Your task to perform on an android device: install app "Google News" Image 0: 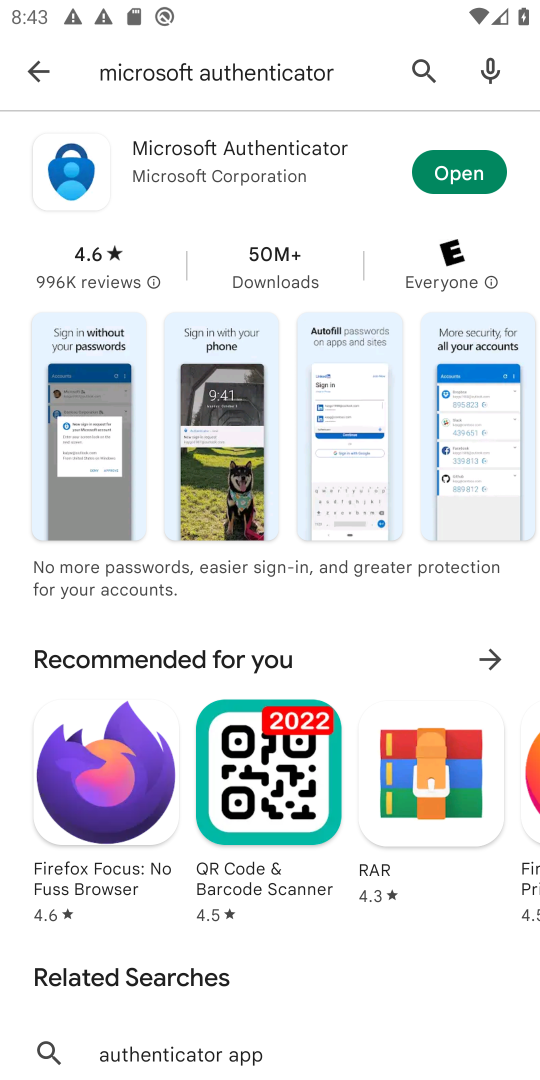
Step 0: press home button
Your task to perform on an android device: install app "Google News" Image 1: 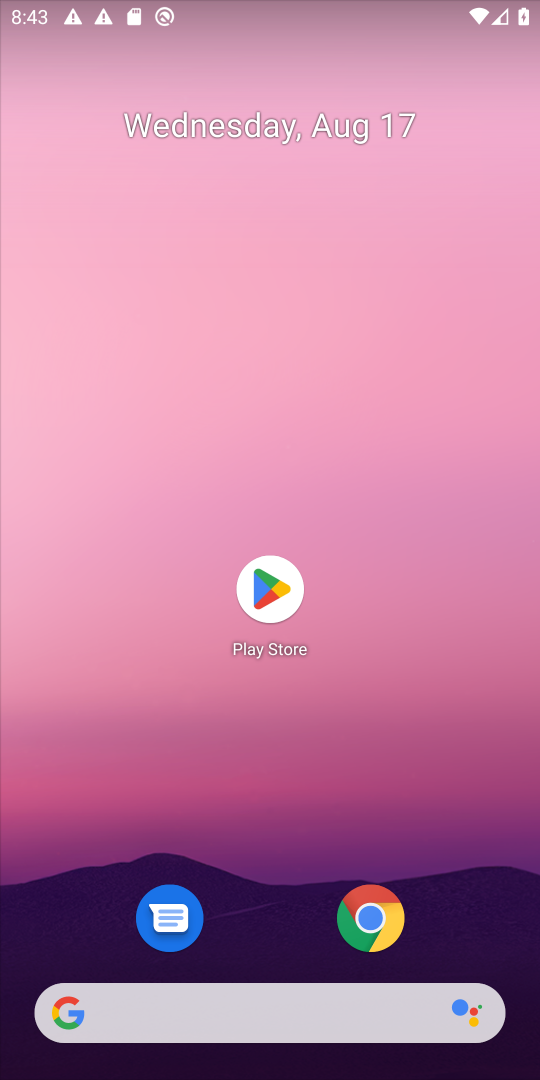
Step 1: click (269, 589)
Your task to perform on an android device: install app "Google News" Image 2: 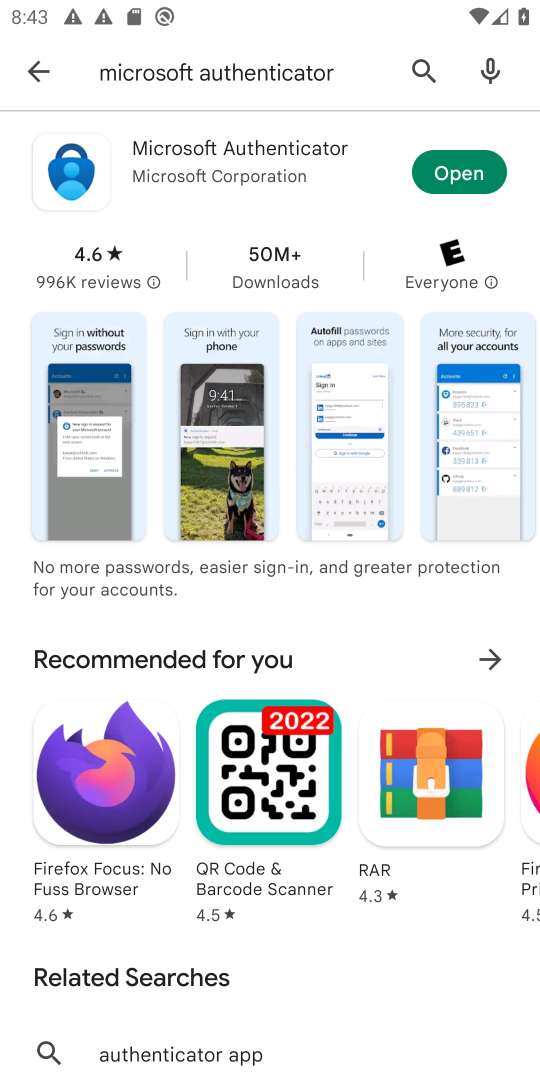
Step 2: click (439, 54)
Your task to perform on an android device: install app "Google News" Image 3: 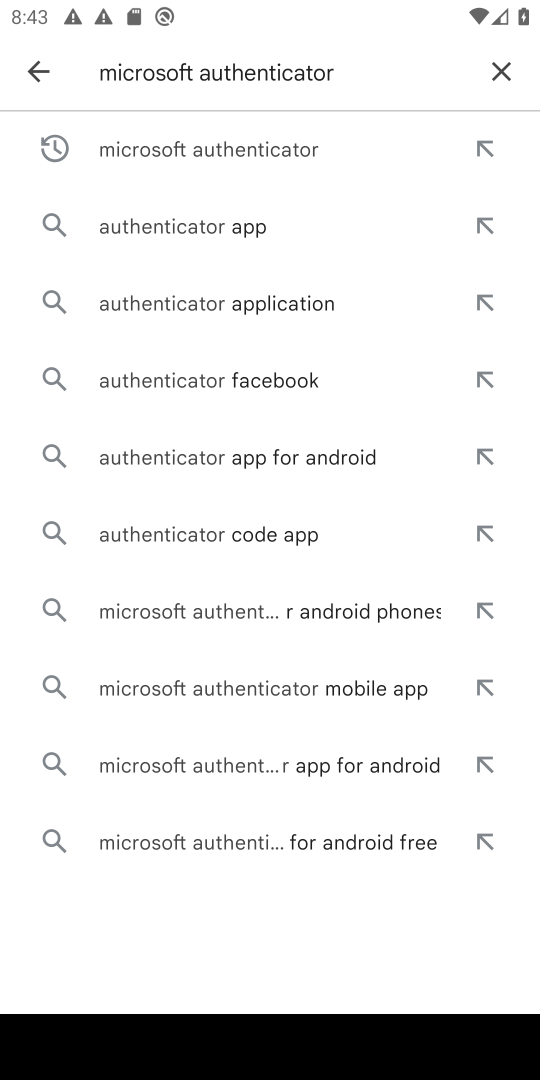
Step 3: click (499, 62)
Your task to perform on an android device: install app "Google News" Image 4: 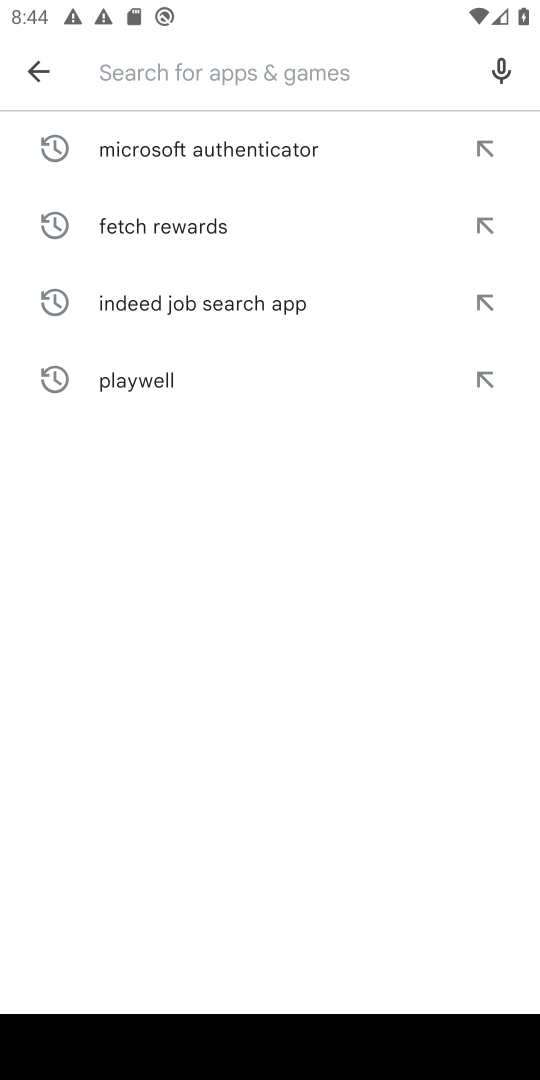
Step 4: type "Google News"
Your task to perform on an android device: install app "Google News" Image 5: 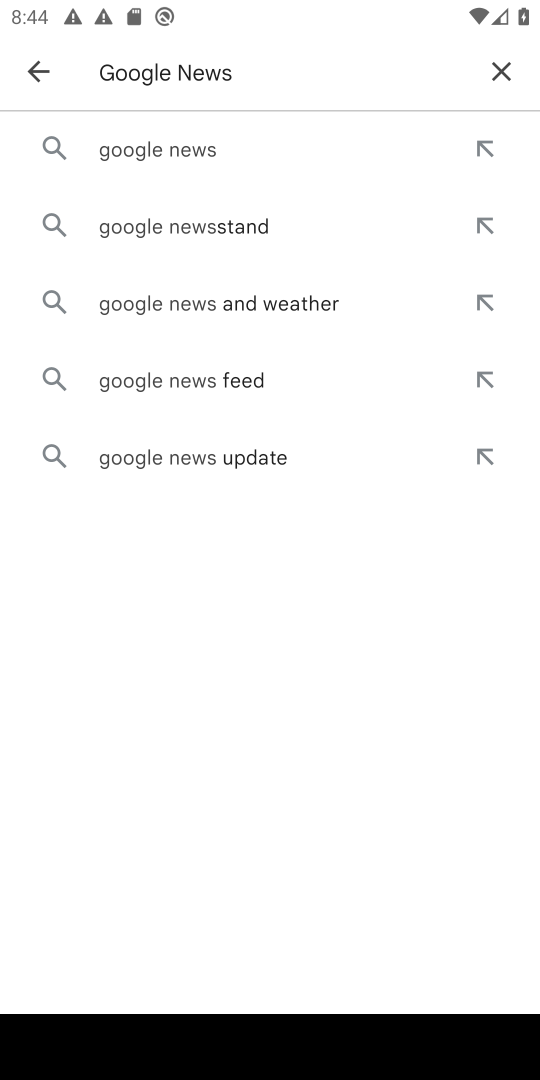
Step 5: click (176, 148)
Your task to perform on an android device: install app "Google News" Image 6: 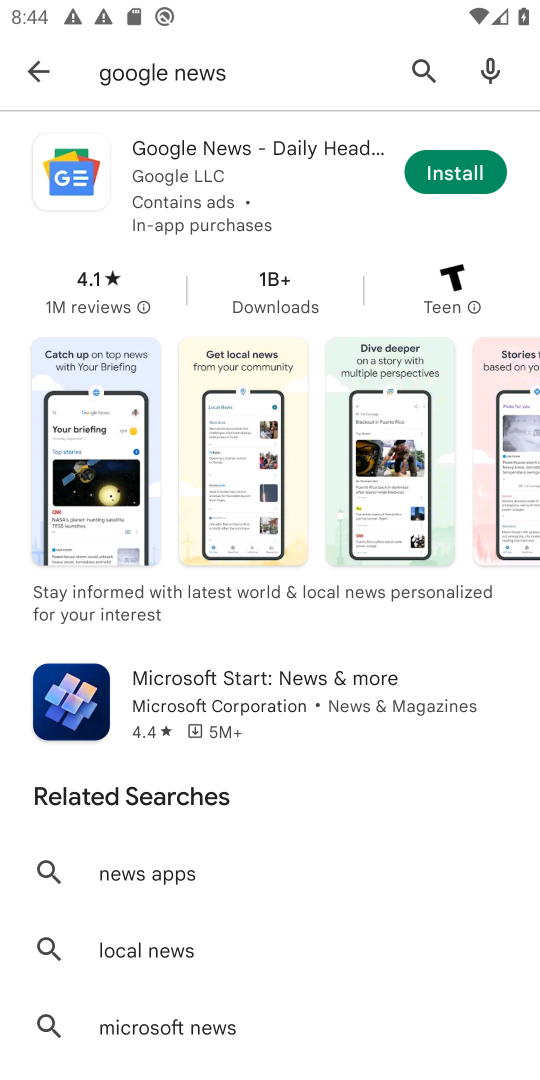
Step 6: click (458, 166)
Your task to perform on an android device: install app "Google News" Image 7: 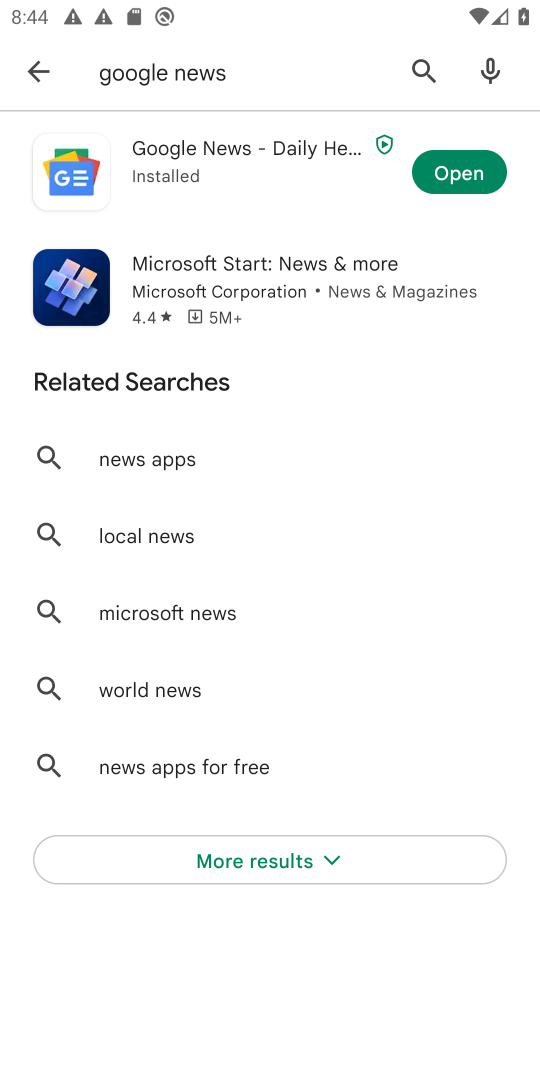
Step 7: task complete